Your task to perform on an android device: stop showing notifications on the lock screen Image 0: 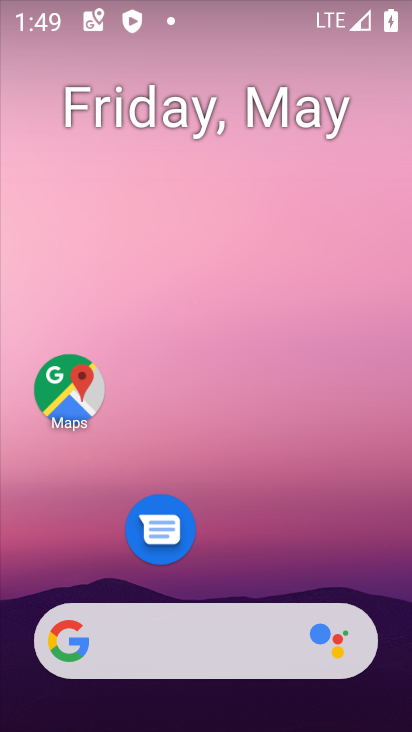
Step 0: drag from (212, 594) to (297, 185)
Your task to perform on an android device: stop showing notifications on the lock screen Image 1: 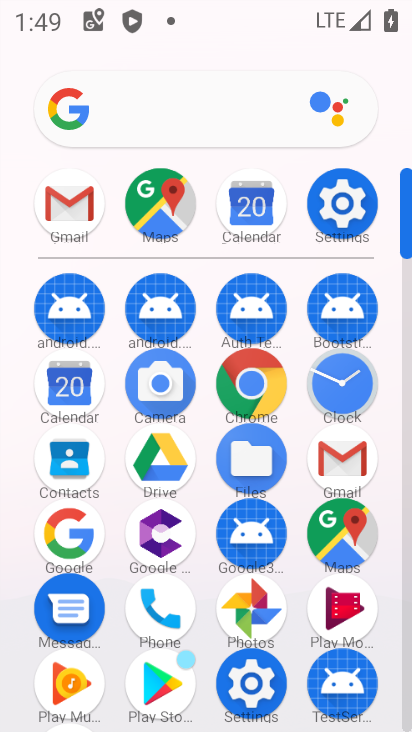
Step 1: click (359, 201)
Your task to perform on an android device: stop showing notifications on the lock screen Image 2: 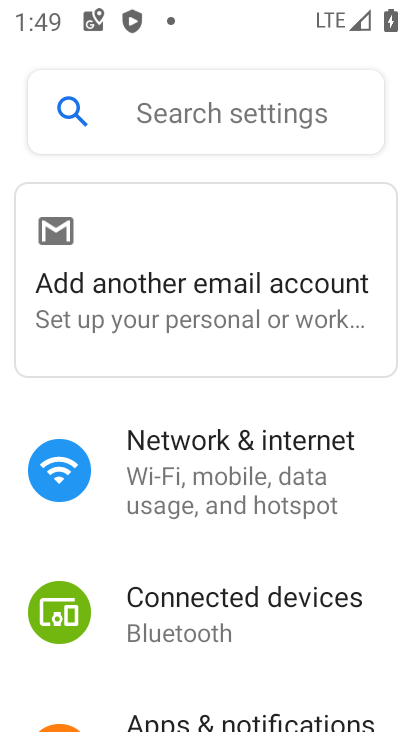
Step 2: click (176, 711)
Your task to perform on an android device: stop showing notifications on the lock screen Image 3: 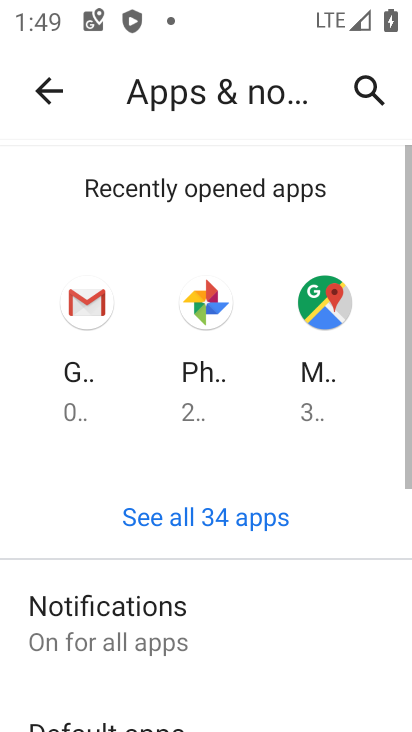
Step 3: drag from (238, 661) to (316, 222)
Your task to perform on an android device: stop showing notifications on the lock screen Image 4: 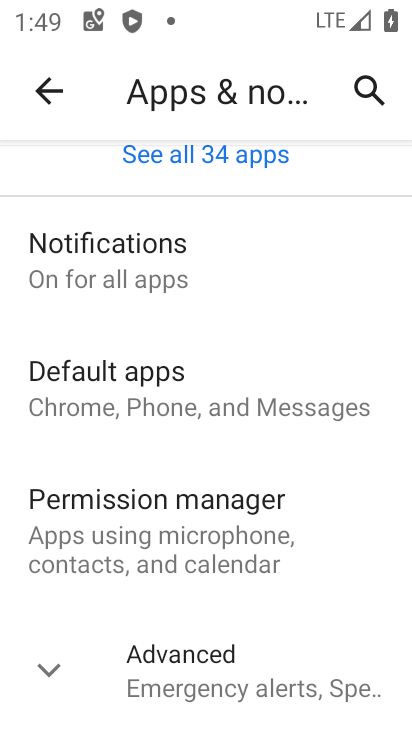
Step 4: click (178, 264)
Your task to perform on an android device: stop showing notifications on the lock screen Image 5: 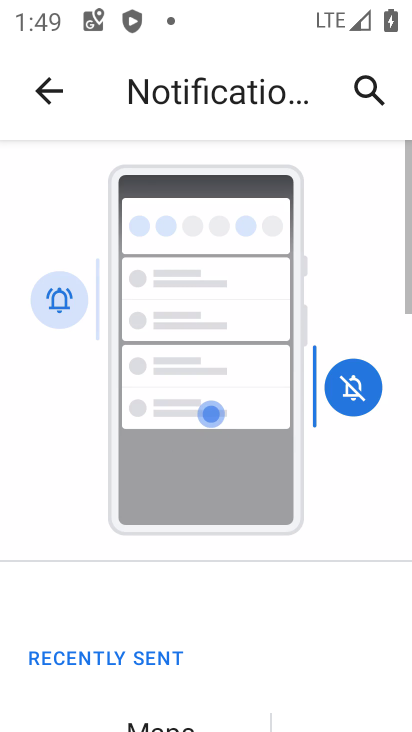
Step 5: drag from (282, 631) to (339, 159)
Your task to perform on an android device: stop showing notifications on the lock screen Image 6: 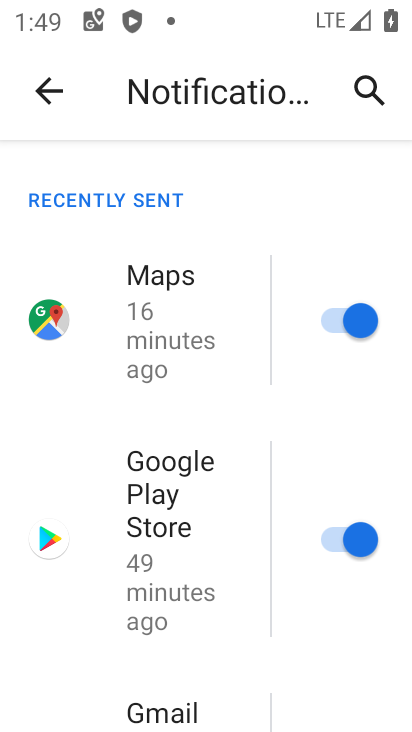
Step 6: drag from (234, 601) to (300, 201)
Your task to perform on an android device: stop showing notifications on the lock screen Image 7: 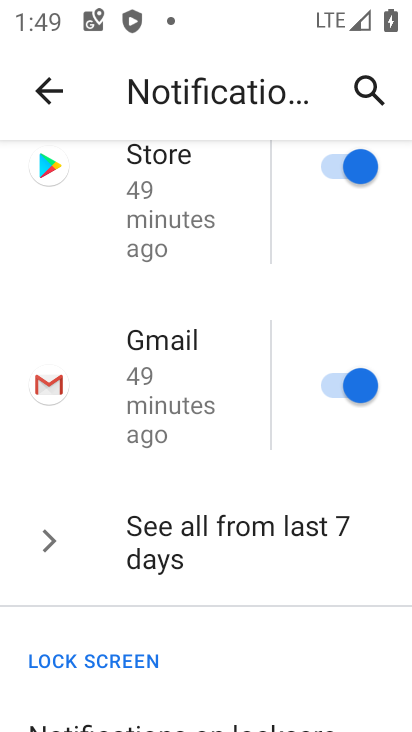
Step 7: drag from (192, 692) to (288, 238)
Your task to perform on an android device: stop showing notifications on the lock screen Image 8: 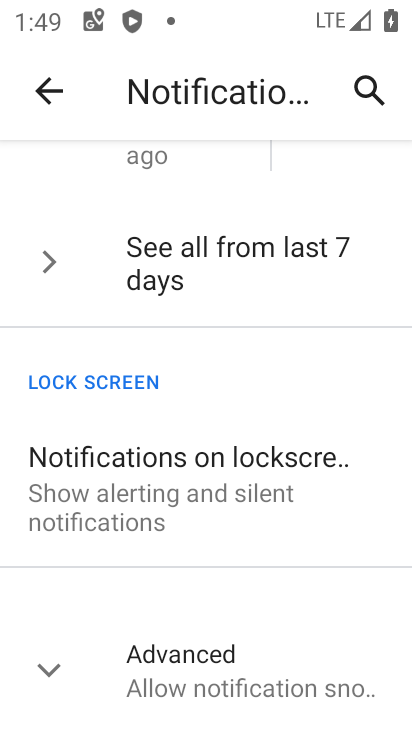
Step 8: click (227, 498)
Your task to perform on an android device: stop showing notifications on the lock screen Image 9: 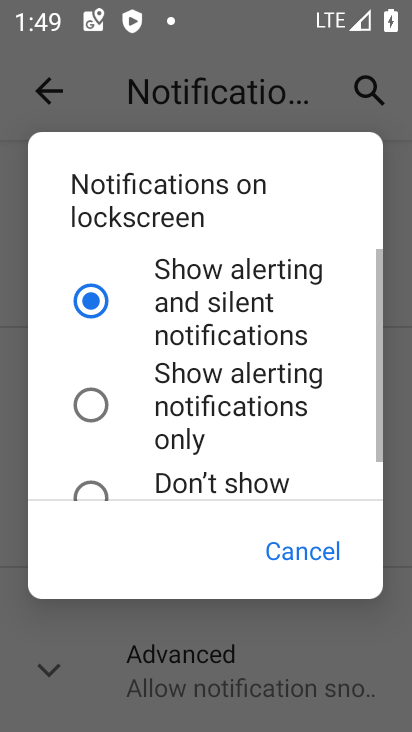
Step 9: click (130, 479)
Your task to perform on an android device: stop showing notifications on the lock screen Image 10: 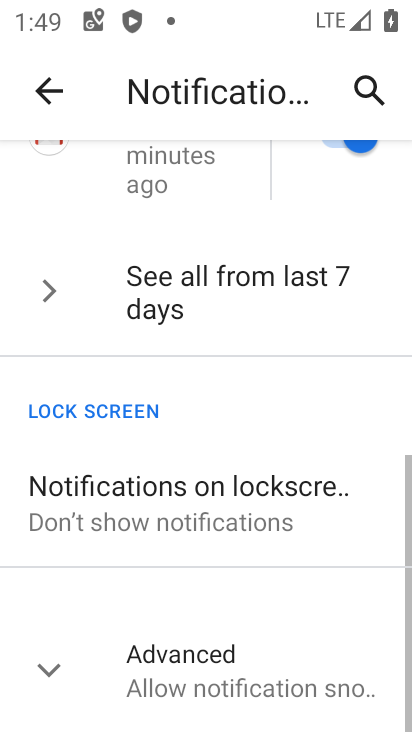
Step 10: task complete